Your task to perform on an android device: toggle location history Image 0: 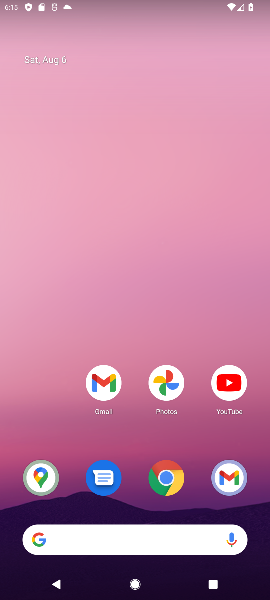
Step 0: press home button
Your task to perform on an android device: toggle location history Image 1: 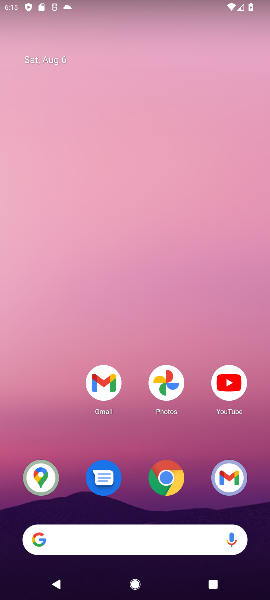
Step 1: drag from (156, 506) to (184, 31)
Your task to perform on an android device: toggle location history Image 2: 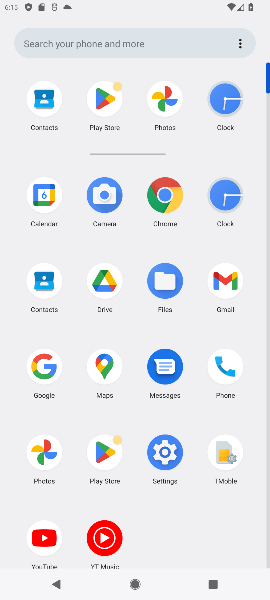
Step 2: click (164, 459)
Your task to perform on an android device: toggle location history Image 3: 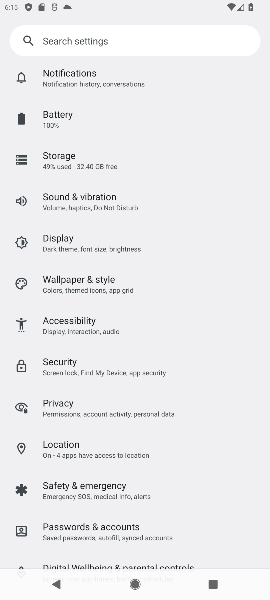
Step 3: click (68, 453)
Your task to perform on an android device: toggle location history Image 4: 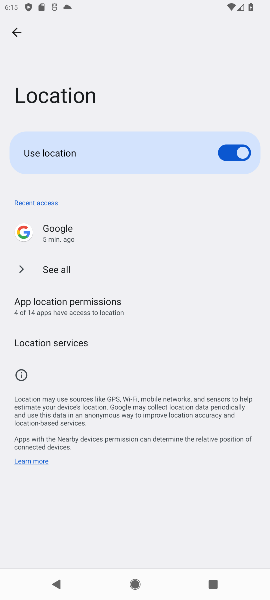
Step 4: click (55, 345)
Your task to perform on an android device: toggle location history Image 5: 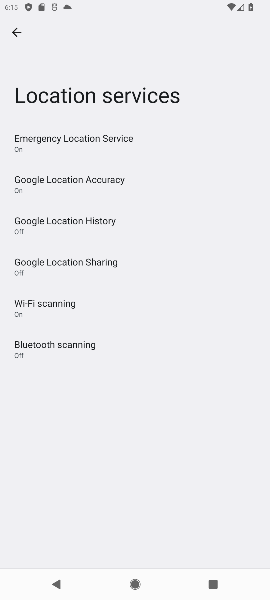
Step 5: click (70, 223)
Your task to perform on an android device: toggle location history Image 6: 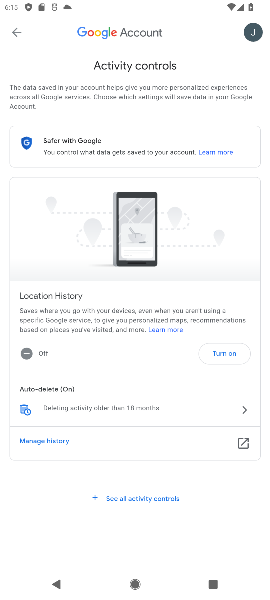
Step 6: click (219, 354)
Your task to perform on an android device: toggle location history Image 7: 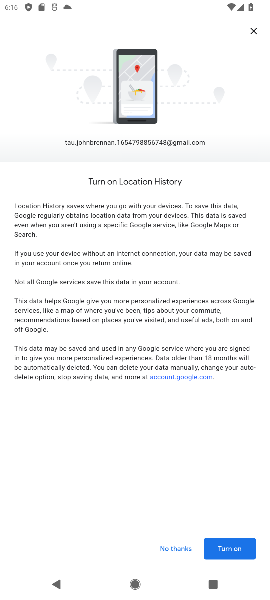
Step 7: click (235, 548)
Your task to perform on an android device: toggle location history Image 8: 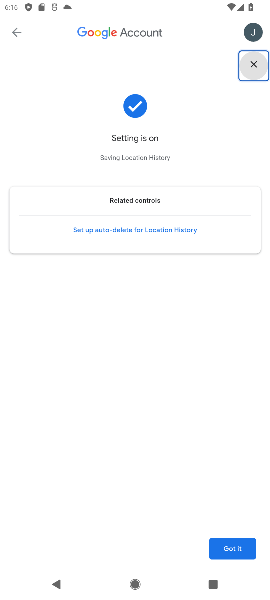
Step 8: click (235, 548)
Your task to perform on an android device: toggle location history Image 9: 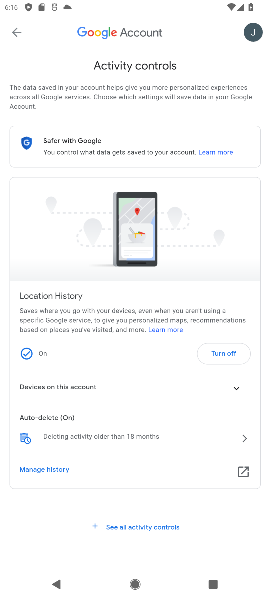
Step 9: task complete